Your task to perform on an android device: Open Chrome and go to settings Image 0: 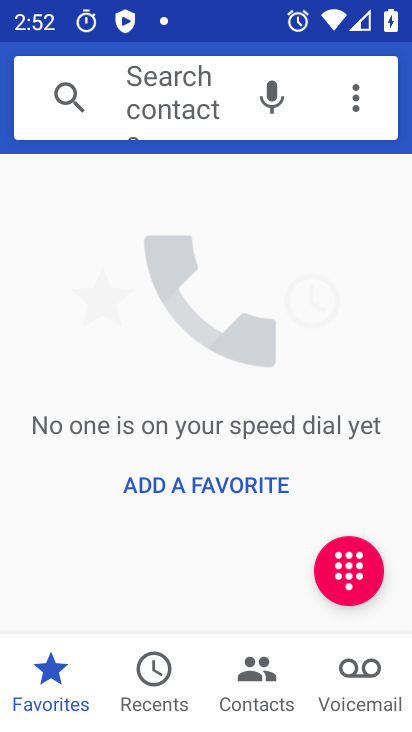
Step 0: press home button
Your task to perform on an android device: Open Chrome and go to settings Image 1: 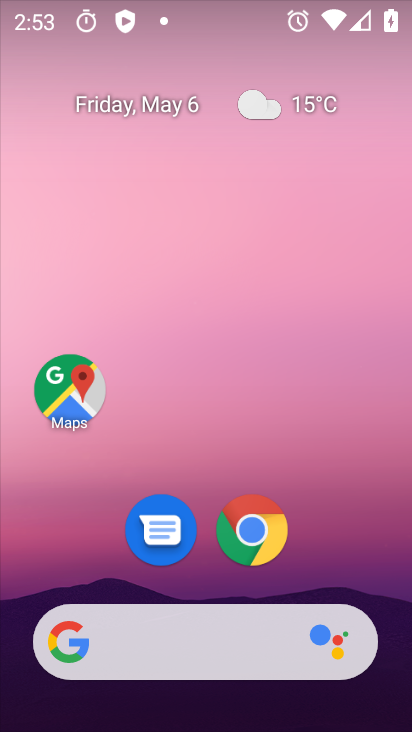
Step 1: drag from (332, 473) to (293, 24)
Your task to perform on an android device: Open Chrome and go to settings Image 2: 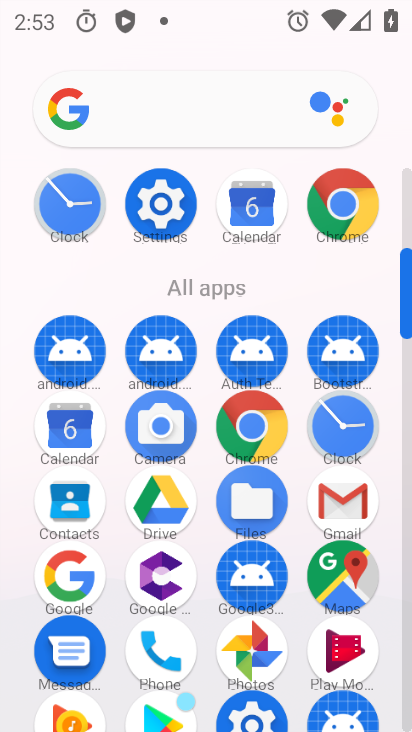
Step 2: click (333, 208)
Your task to perform on an android device: Open Chrome and go to settings Image 3: 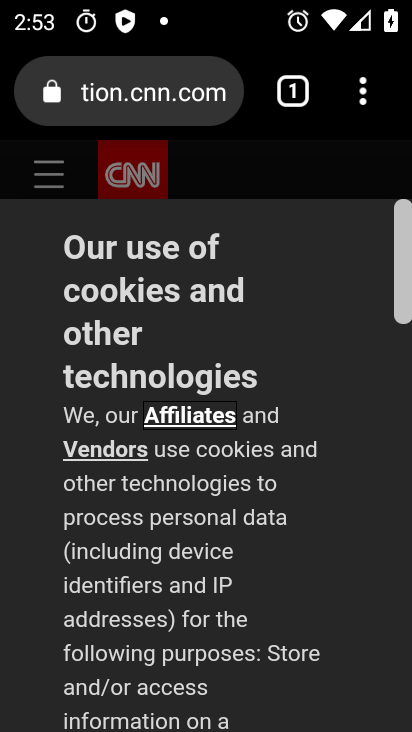
Step 3: task complete